Your task to perform on an android device: Open Yahoo.com Image 0: 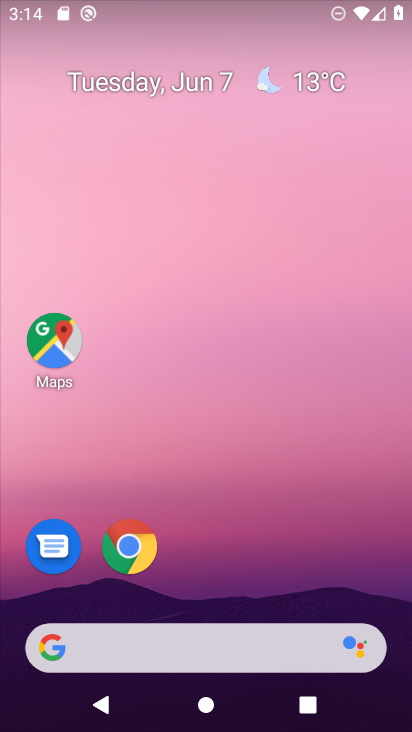
Step 0: click (115, 555)
Your task to perform on an android device: Open Yahoo.com Image 1: 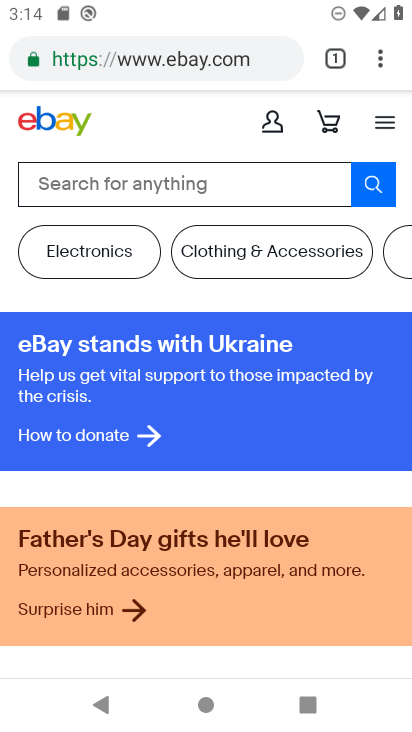
Step 1: click (328, 65)
Your task to perform on an android device: Open Yahoo.com Image 2: 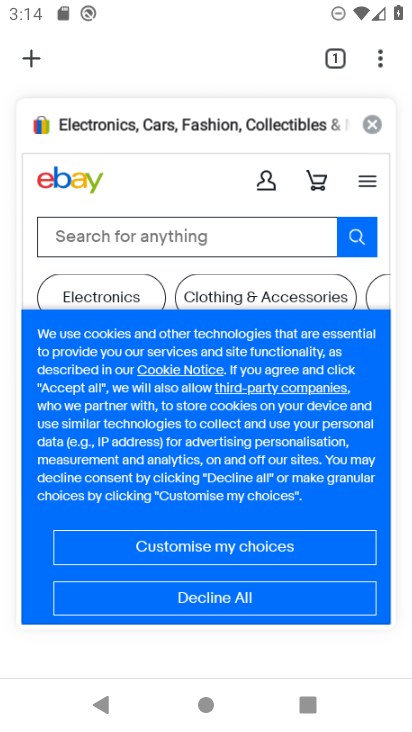
Step 2: click (376, 128)
Your task to perform on an android device: Open Yahoo.com Image 3: 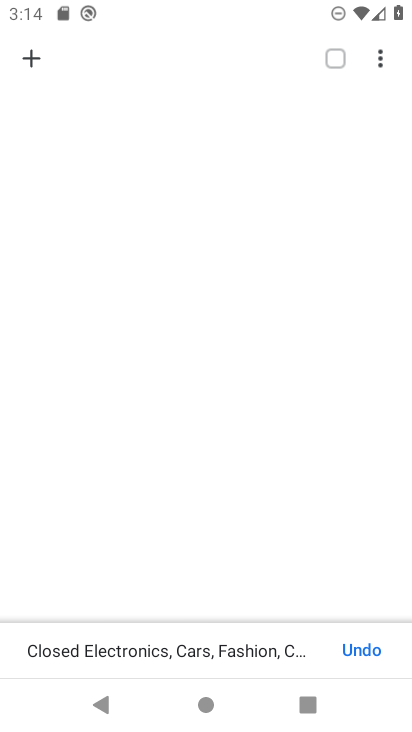
Step 3: click (45, 60)
Your task to perform on an android device: Open Yahoo.com Image 4: 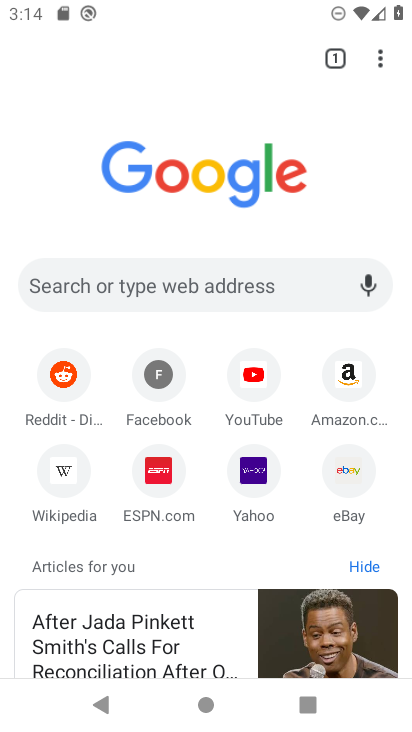
Step 4: click (267, 473)
Your task to perform on an android device: Open Yahoo.com Image 5: 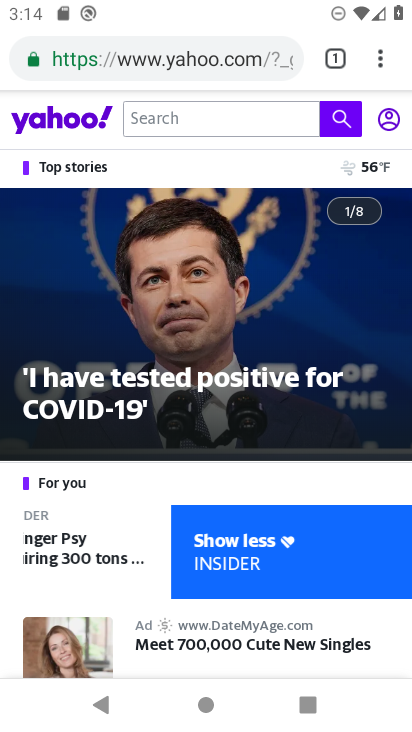
Step 5: task complete